Your task to perform on an android device: change your default location settings in chrome Image 0: 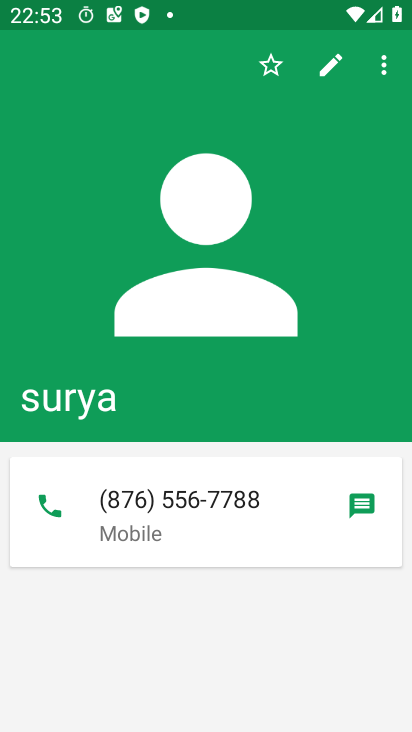
Step 0: press home button
Your task to perform on an android device: change your default location settings in chrome Image 1: 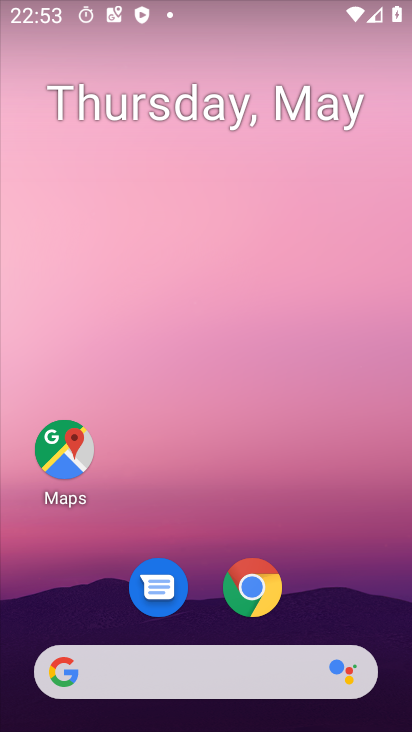
Step 1: click (258, 592)
Your task to perform on an android device: change your default location settings in chrome Image 2: 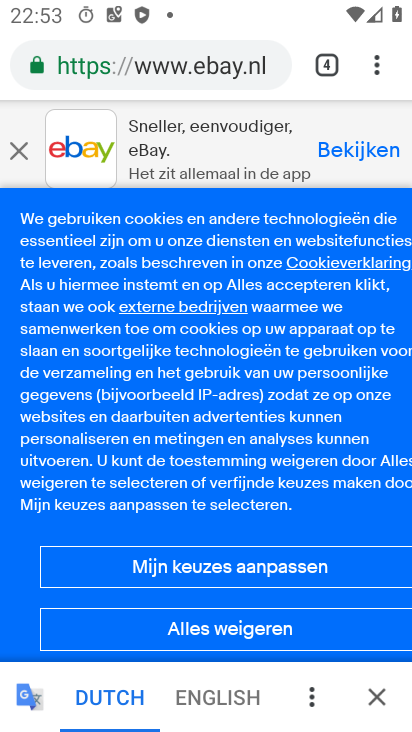
Step 2: click (374, 68)
Your task to perform on an android device: change your default location settings in chrome Image 3: 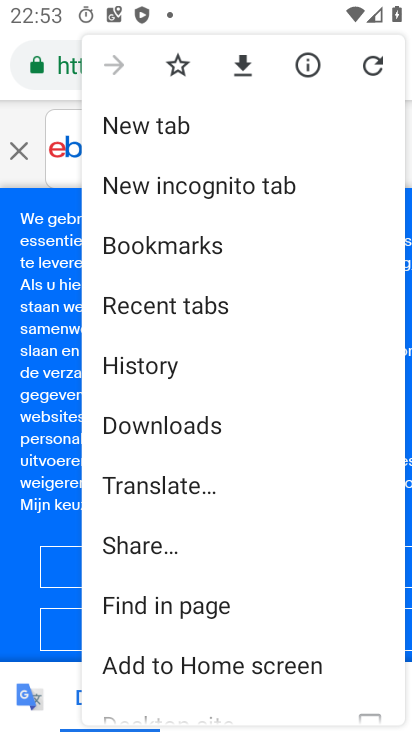
Step 3: drag from (223, 502) to (257, 329)
Your task to perform on an android device: change your default location settings in chrome Image 4: 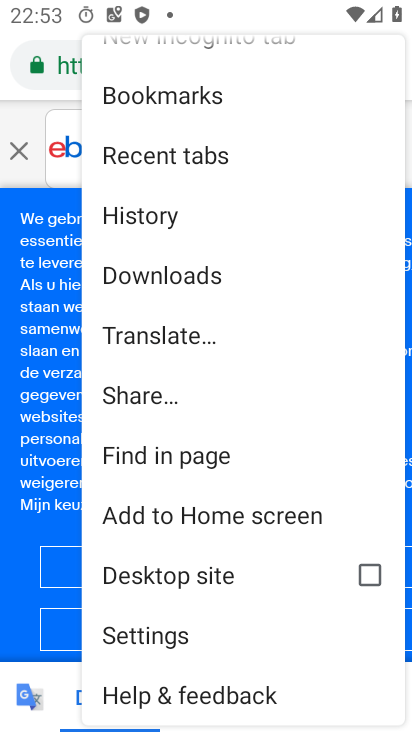
Step 4: click (179, 638)
Your task to perform on an android device: change your default location settings in chrome Image 5: 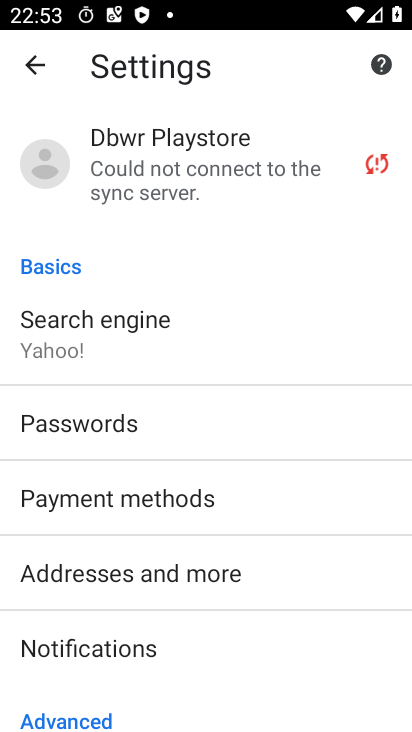
Step 5: drag from (276, 526) to (294, 400)
Your task to perform on an android device: change your default location settings in chrome Image 6: 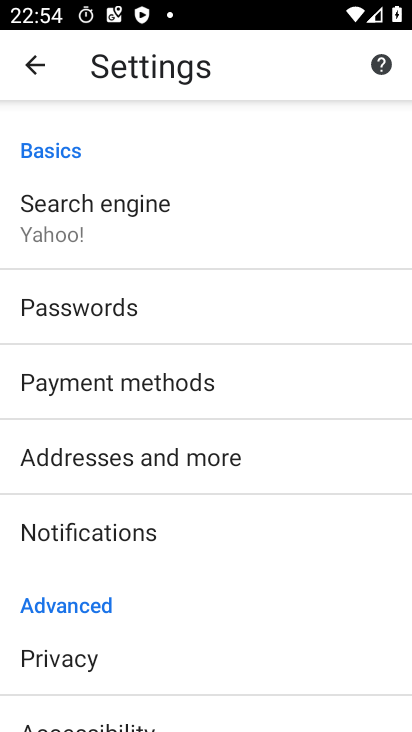
Step 6: drag from (279, 537) to (283, 243)
Your task to perform on an android device: change your default location settings in chrome Image 7: 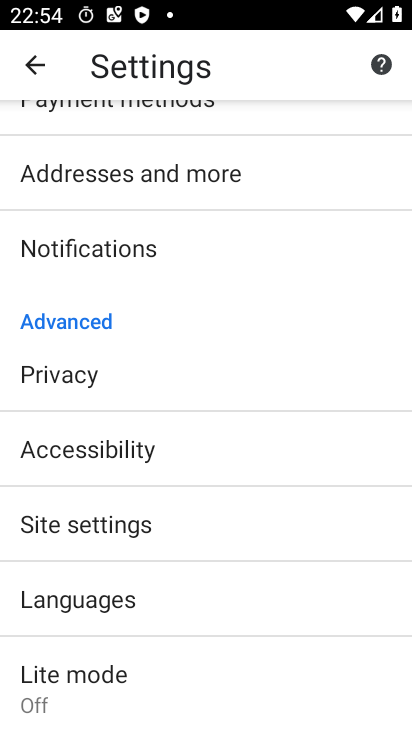
Step 7: click (126, 534)
Your task to perform on an android device: change your default location settings in chrome Image 8: 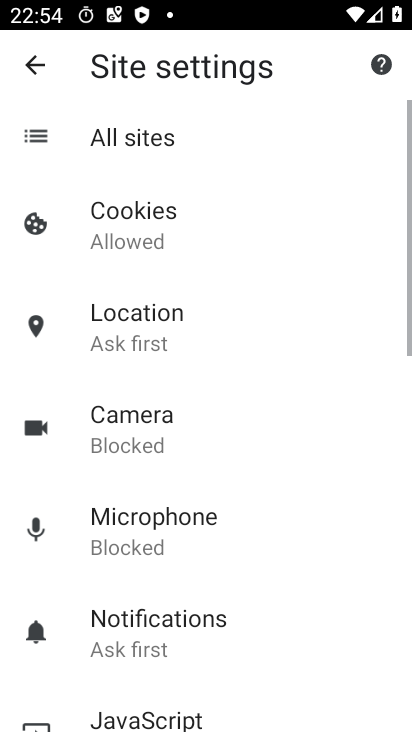
Step 8: click (169, 325)
Your task to perform on an android device: change your default location settings in chrome Image 9: 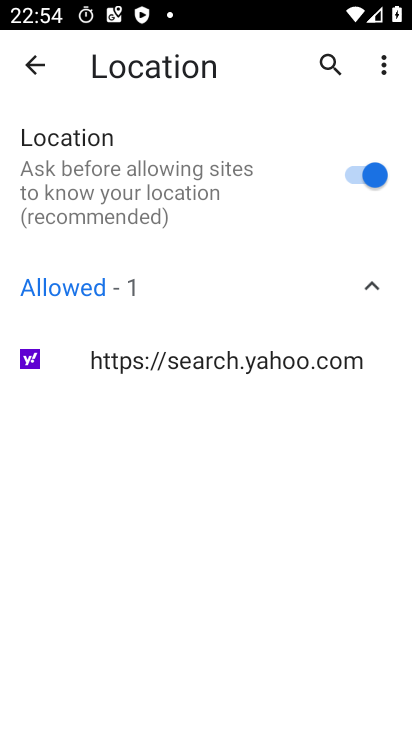
Step 9: click (366, 171)
Your task to perform on an android device: change your default location settings in chrome Image 10: 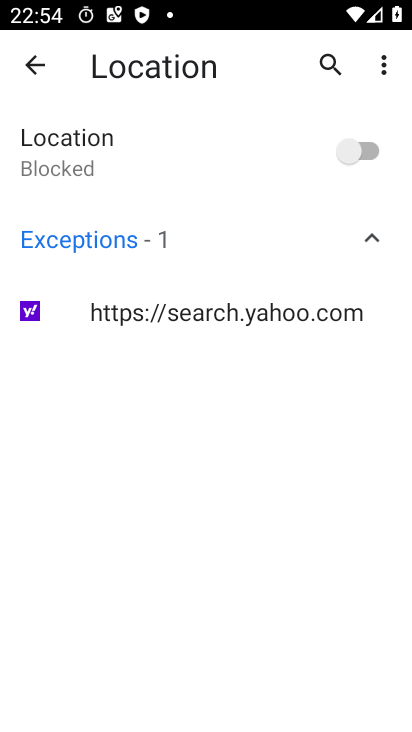
Step 10: task complete